Your task to perform on an android device: Search for pizza restaurants on Maps Image 0: 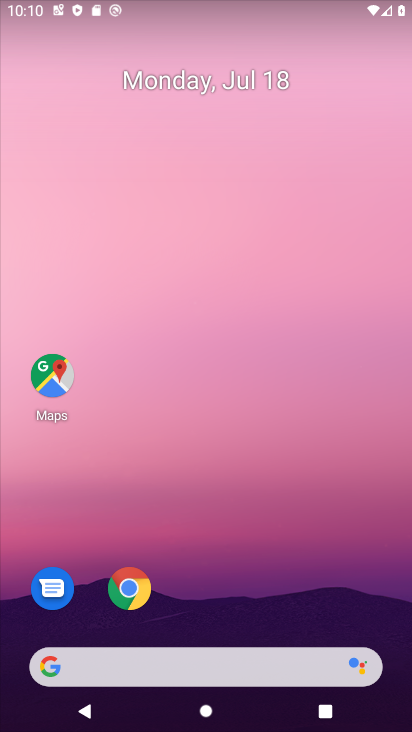
Step 0: drag from (260, 632) to (289, 53)
Your task to perform on an android device: Search for pizza restaurants on Maps Image 1: 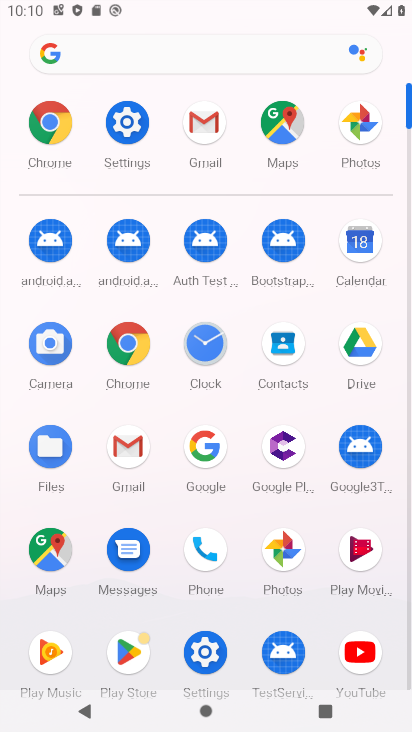
Step 1: click (49, 551)
Your task to perform on an android device: Search for pizza restaurants on Maps Image 2: 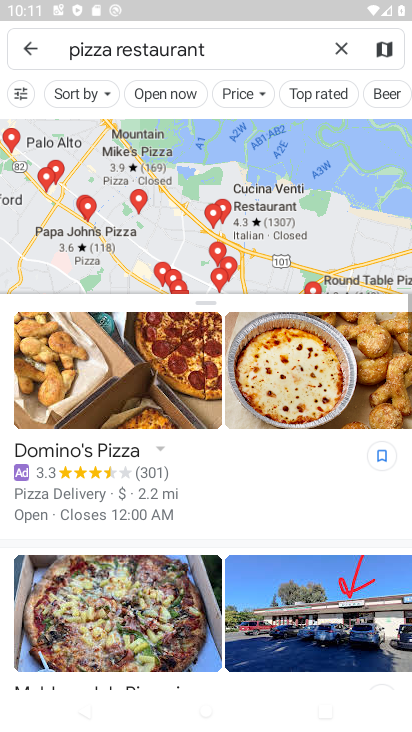
Step 2: click (339, 50)
Your task to perform on an android device: Search for pizza restaurants on Maps Image 3: 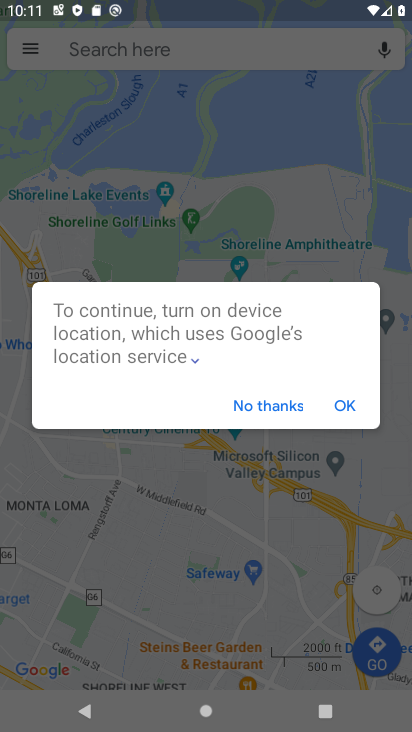
Step 3: click (185, 50)
Your task to perform on an android device: Search for pizza restaurants on Maps Image 4: 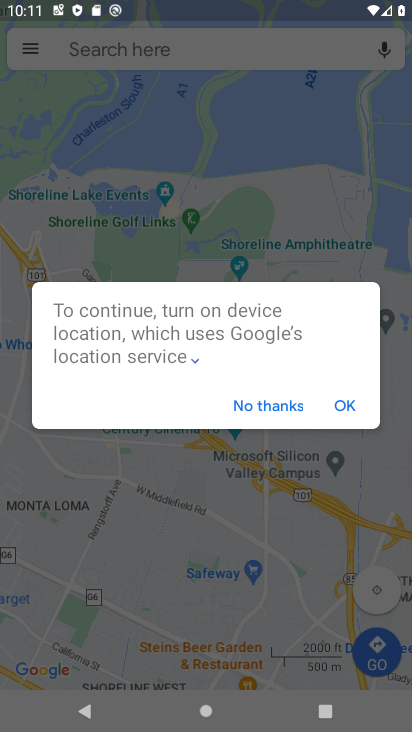
Step 4: click (261, 406)
Your task to perform on an android device: Search for pizza restaurants on Maps Image 5: 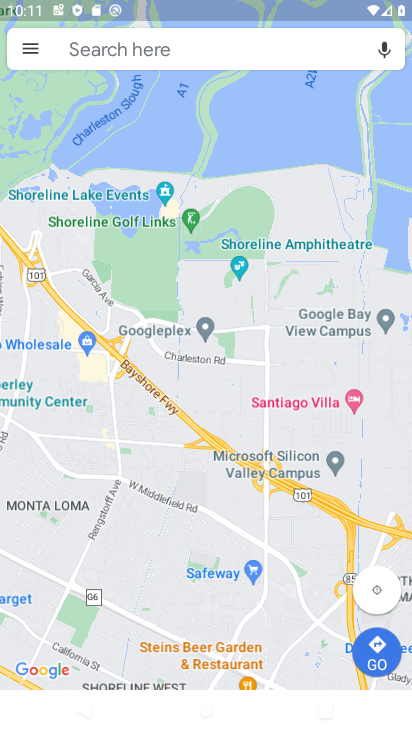
Step 5: click (265, 49)
Your task to perform on an android device: Search for pizza restaurants on Maps Image 6: 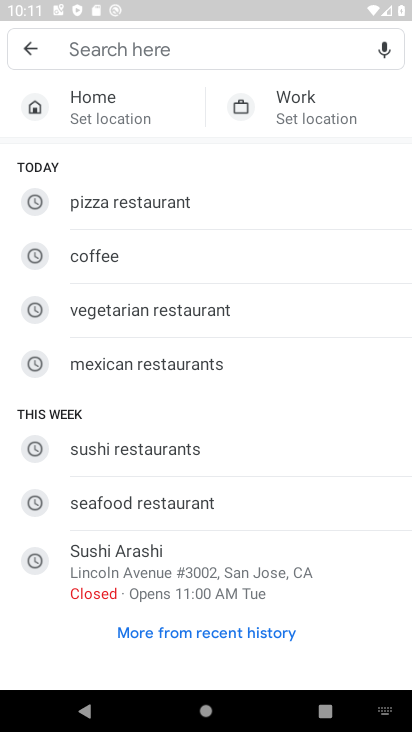
Step 6: type "Pizza restaurants"
Your task to perform on an android device: Search for pizza restaurants on Maps Image 7: 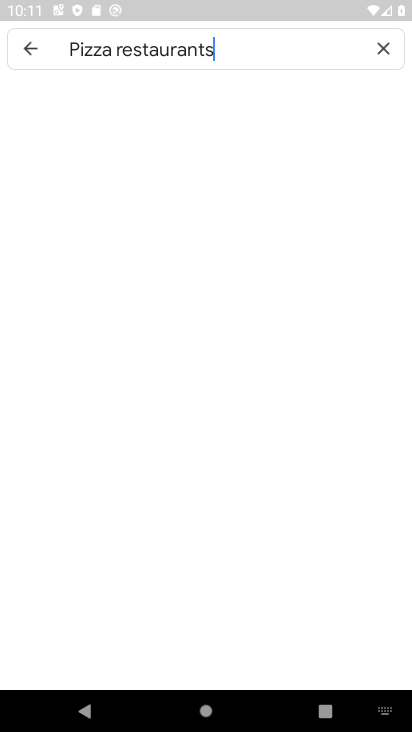
Step 7: type ""
Your task to perform on an android device: Search for pizza restaurants on Maps Image 8: 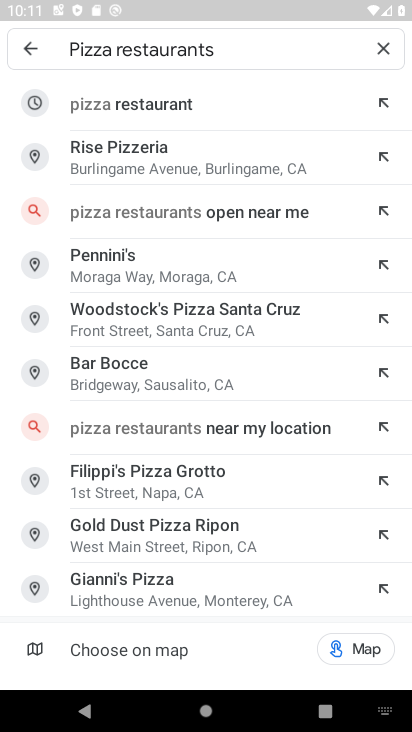
Step 8: click (174, 105)
Your task to perform on an android device: Search for pizza restaurants on Maps Image 9: 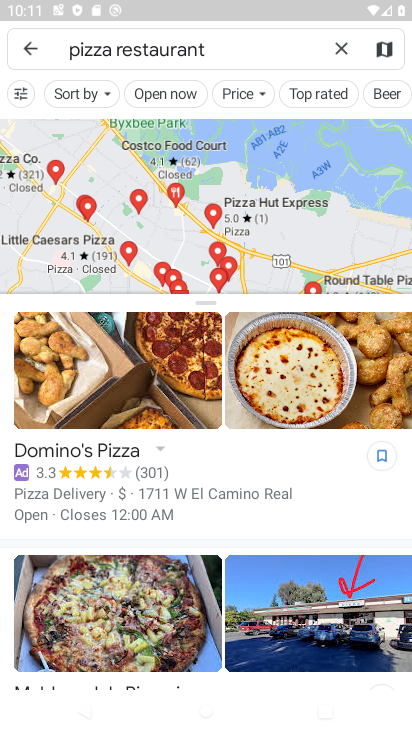
Step 9: task complete